Your task to perform on an android device: Open display settings Image 0: 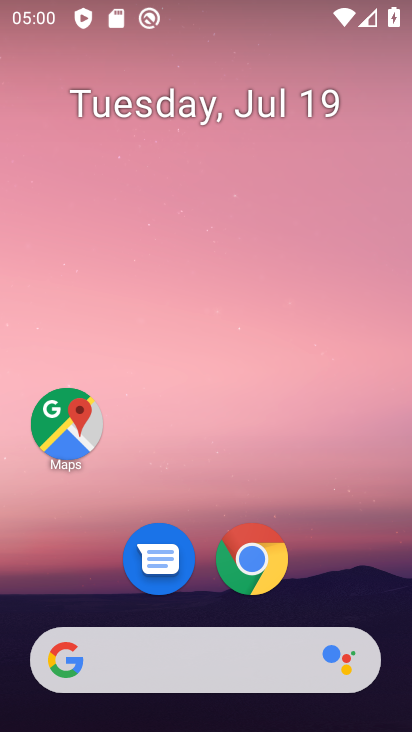
Step 0: drag from (112, 513) to (246, 20)
Your task to perform on an android device: Open display settings Image 1: 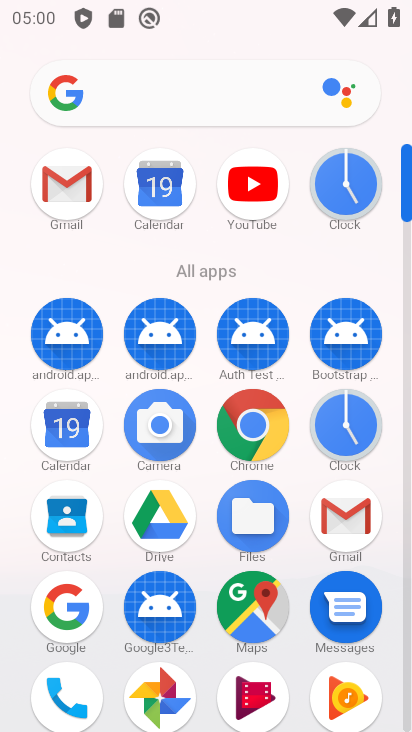
Step 1: drag from (186, 611) to (249, 42)
Your task to perform on an android device: Open display settings Image 2: 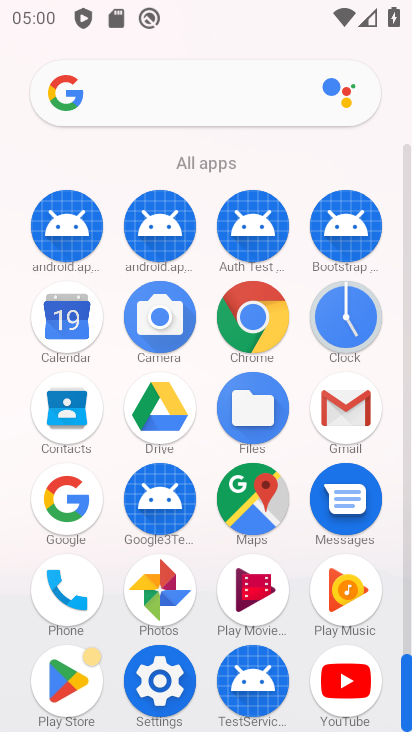
Step 2: click (157, 677)
Your task to perform on an android device: Open display settings Image 3: 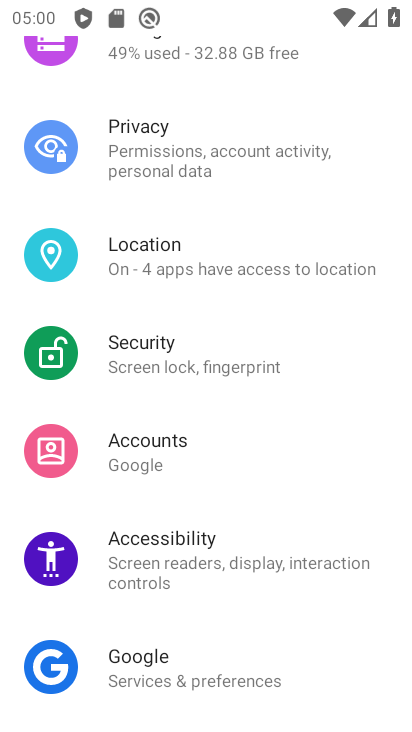
Step 3: drag from (234, 256) to (195, 669)
Your task to perform on an android device: Open display settings Image 4: 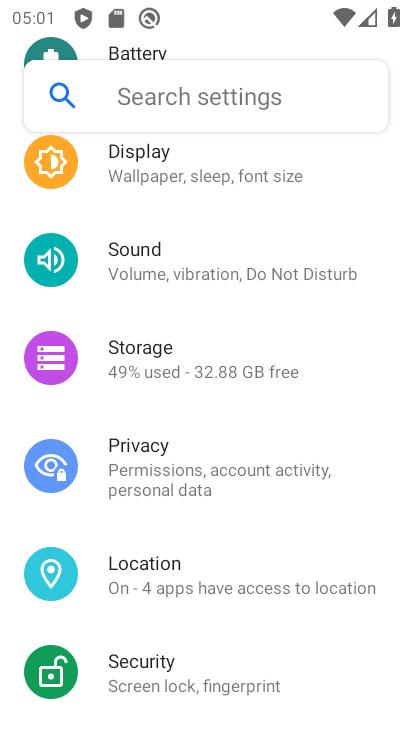
Step 4: click (151, 167)
Your task to perform on an android device: Open display settings Image 5: 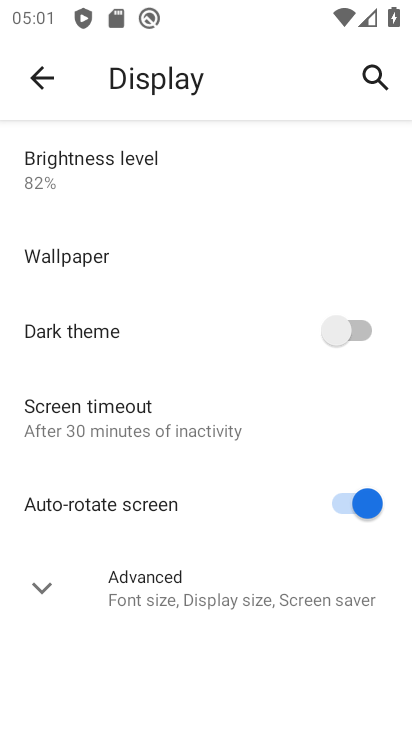
Step 5: task complete